Your task to perform on an android device: star an email in the gmail app Image 0: 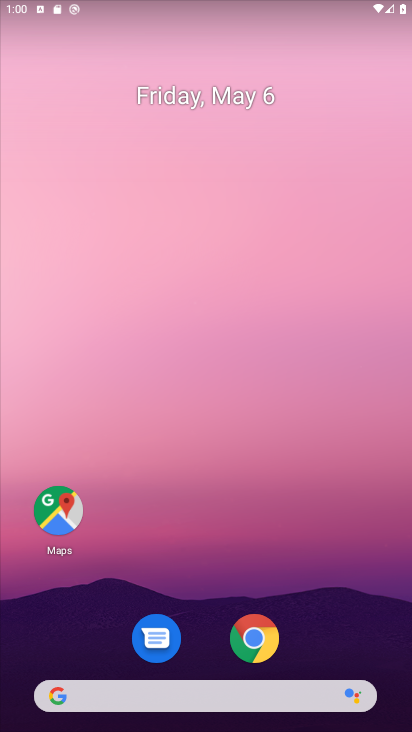
Step 0: drag from (341, 685) to (341, 4)
Your task to perform on an android device: star an email in the gmail app Image 1: 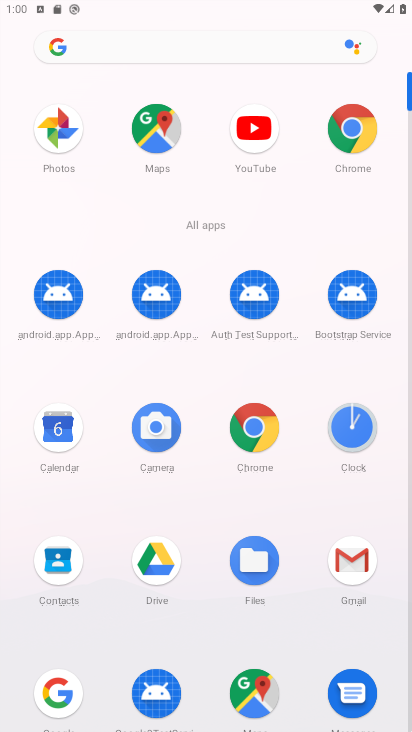
Step 1: click (360, 563)
Your task to perform on an android device: star an email in the gmail app Image 2: 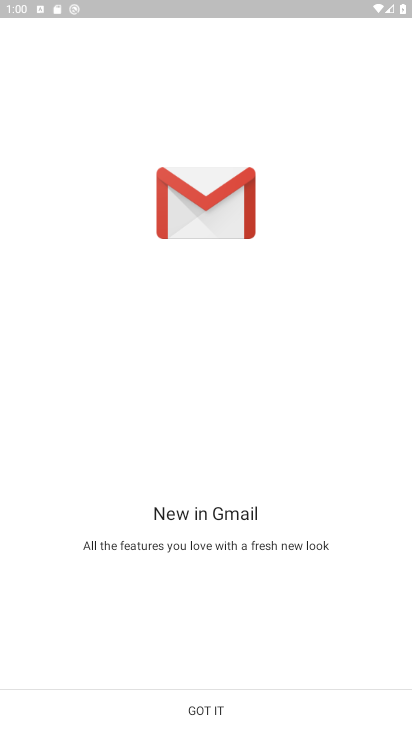
Step 2: click (243, 716)
Your task to perform on an android device: star an email in the gmail app Image 3: 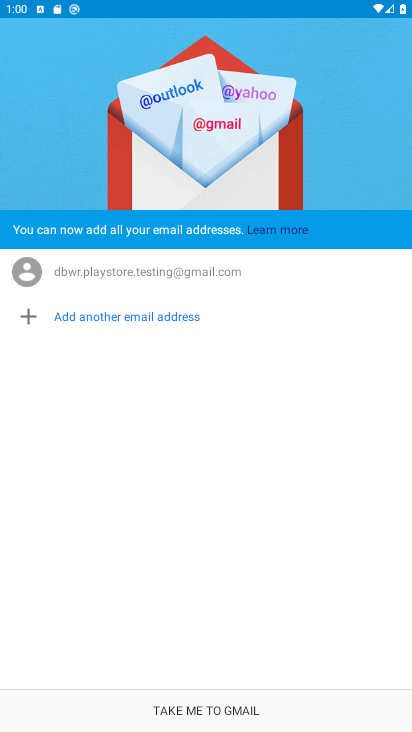
Step 3: click (243, 702)
Your task to perform on an android device: star an email in the gmail app Image 4: 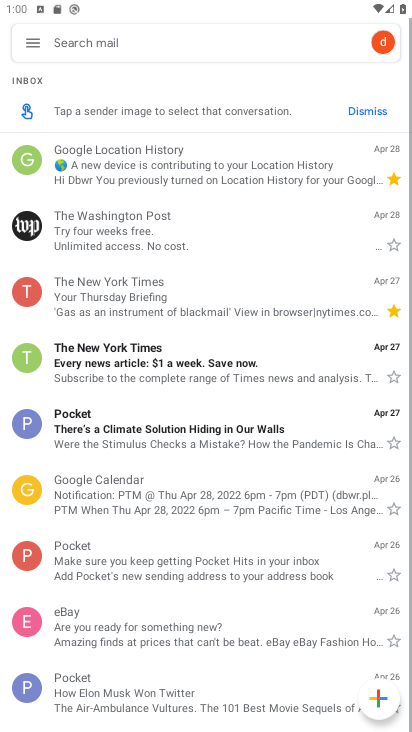
Step 4: click (393, 443)
Your task to perform on an android device: star an email in the gmail app Image 5: 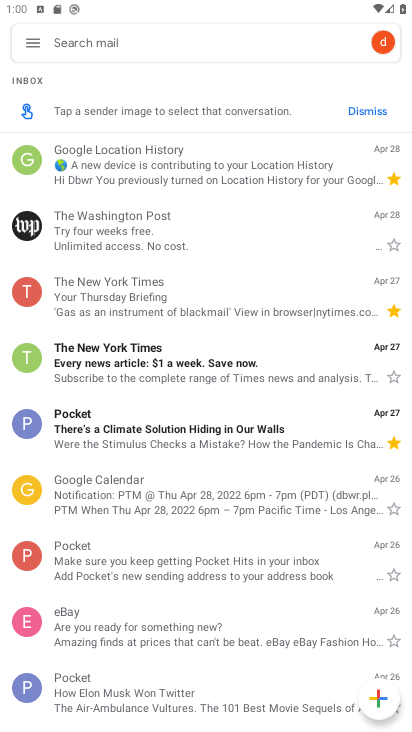
Step 5: task complete